Your task to perform on an android device: turn notification dots off Image 0: 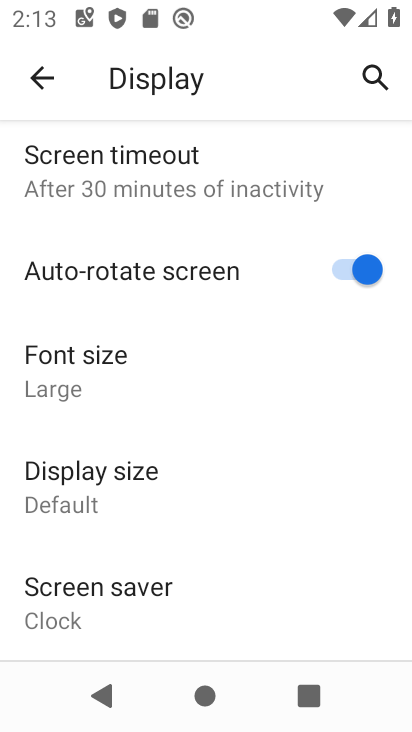
Step 0: press home button
Your task to perform on an android device: turn notification dots off Image 1: 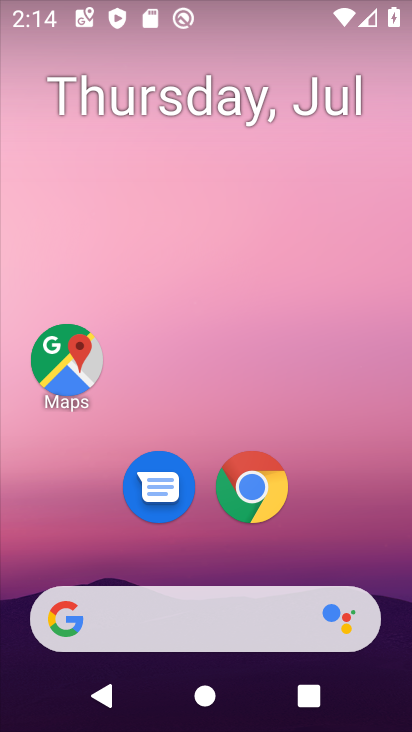
Step 1: drag from (338, 559) to (351, 198)
Your task to perform on an android device: turn notification dots off Image 2: 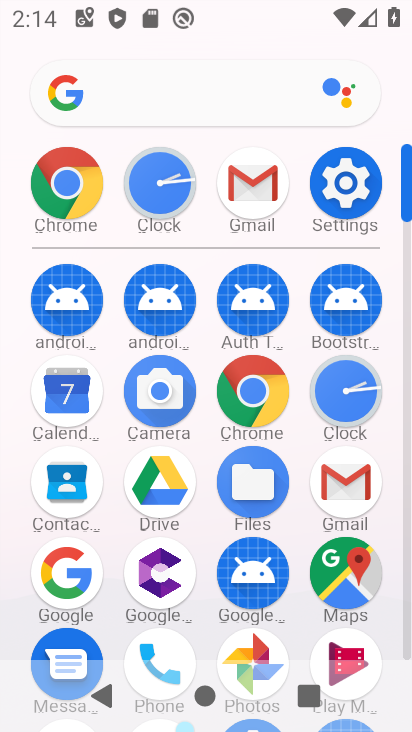
Step 2: click (350, 187)
Your task to perform on an android device: turn notification dots off Image 3: 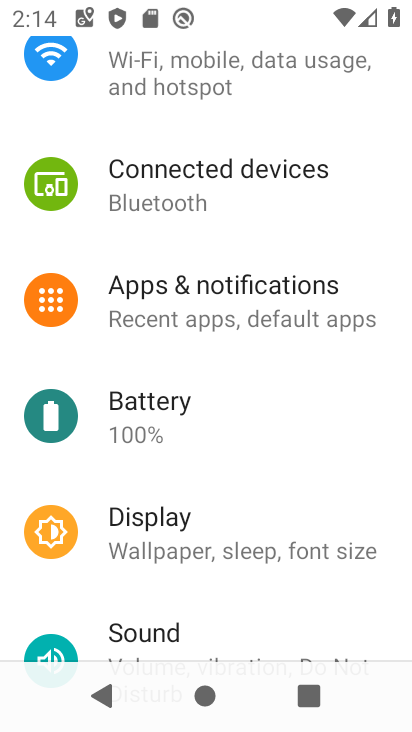
Step 3: drag from (359, 167) to (364, 265)
Your task to perform on an android device: turn notification dots off Image 4: 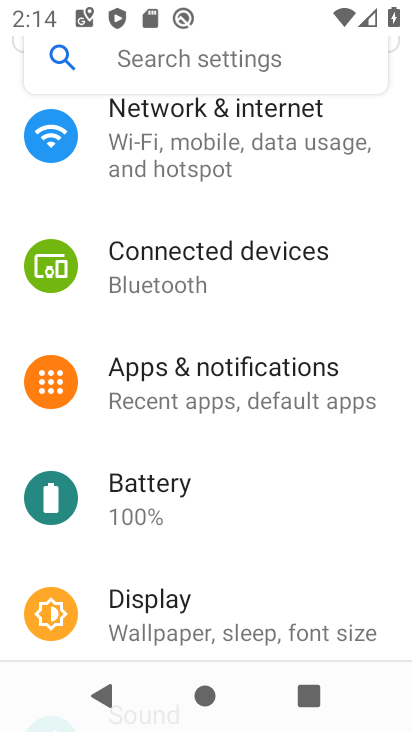
Step 4: drag from (385, 150) to (387, 249)
Your task to perform on an android device: turn notification dots off Image 5: 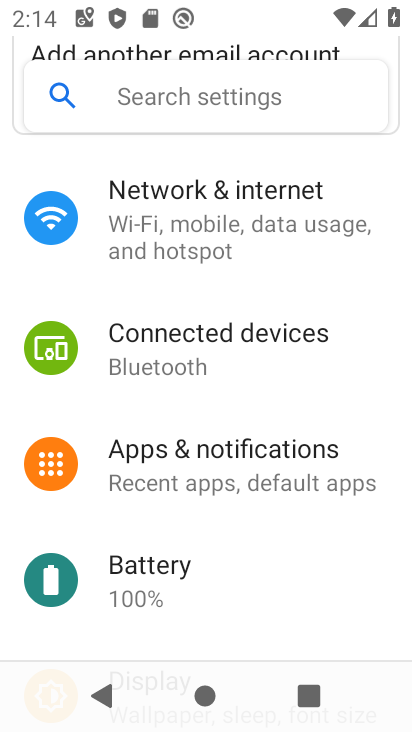
Step 5: click (272, 455)
Your task to perform on an android device: turn notification dots off Image 6: 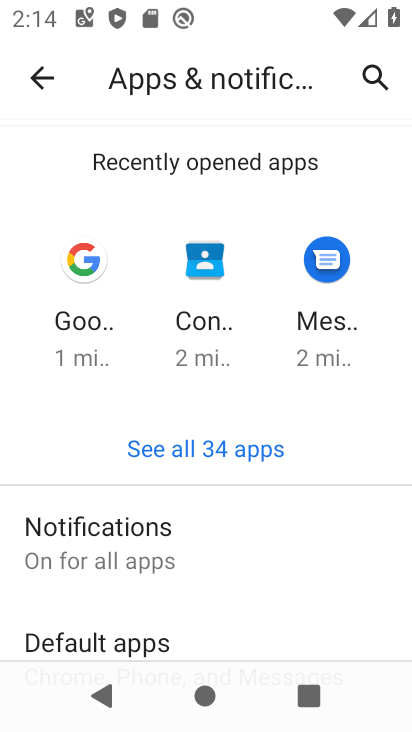
Step 6: click (137, 547)
Your task to perform on an android device: turn notification dots off Image 7: 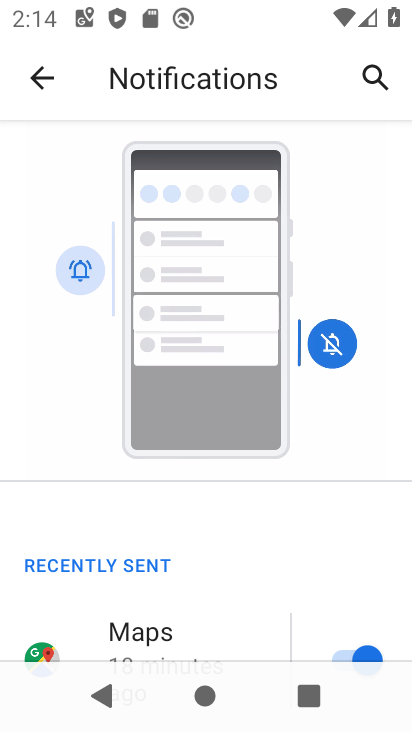
Step 7: drag from (215, 549) to (213, 431)
Your task to perform on an android device: turn notification dots off Image 8: 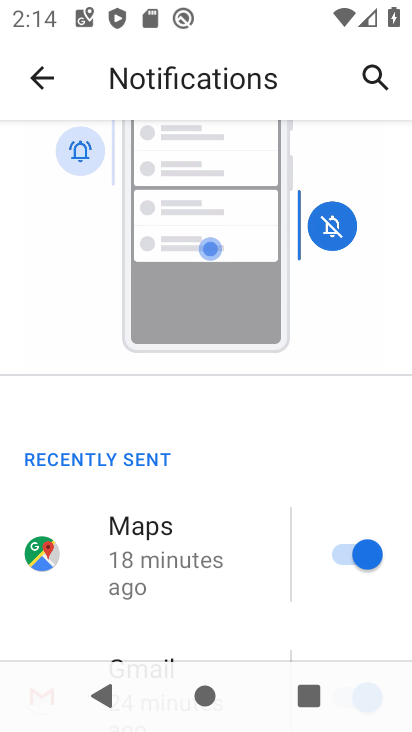
Step 8: drag from (259, 553) to (257, 421)
Your task to perform on an android device: turn notification dots off Image 9: 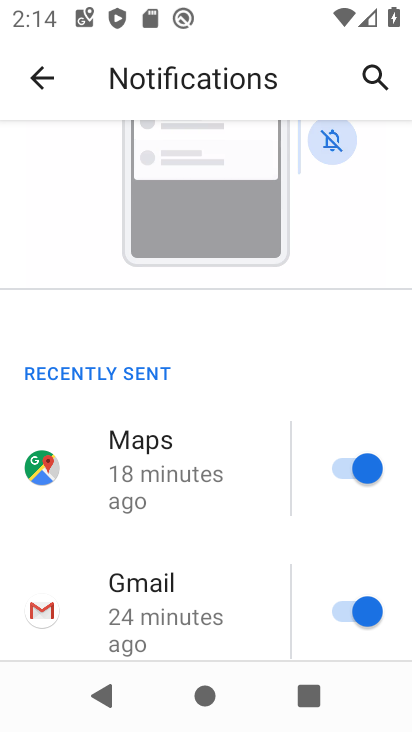
Step 9: drag from (258, 574) to (257, 389)
Your task to perform on an android device: turn notification dots off Image 10: 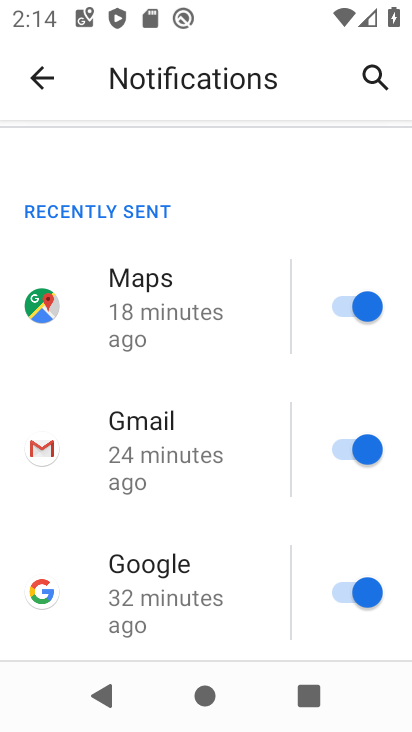
Step 10: drag from (254, 614) to (255, 451)
Your task to perform on an android device: turn notification dots off Image 11: 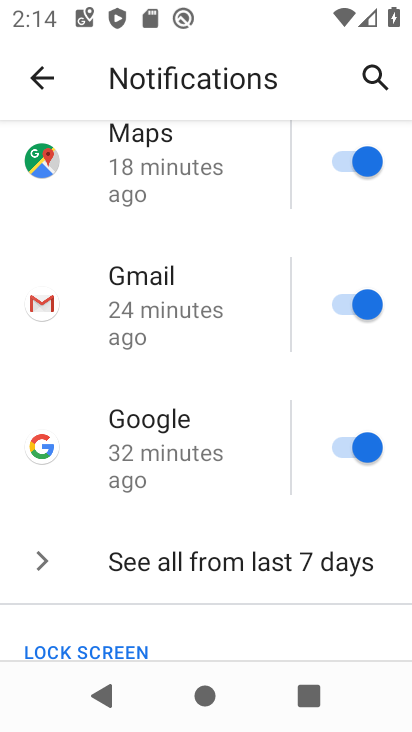
Step 11: drag from (257, 628) to (257, 438)
Your task to perform on an android device: turn notification dots off Image 12: 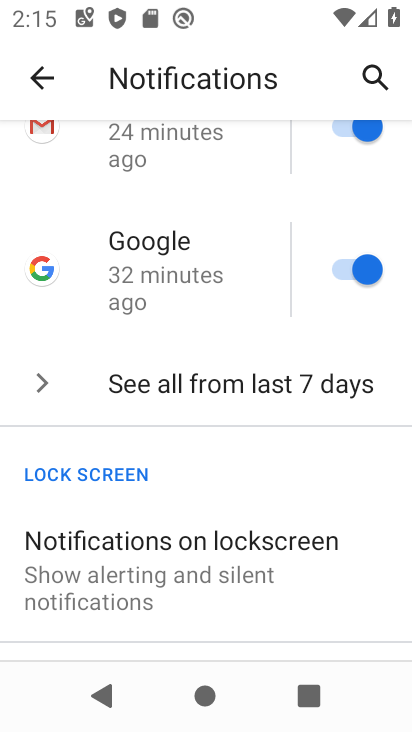
Step 12: drag from (264, 612) to (264, 465)
Your task to perform on an android device: turn notification dots off Image 13: 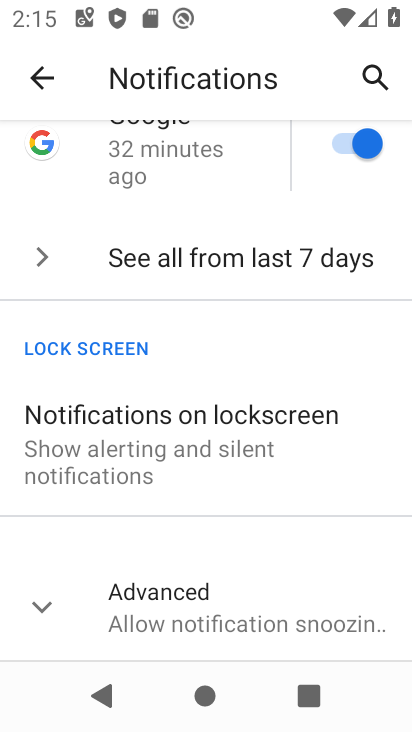
Step 13: click (279, 596)
Your task to perform on an android device: turn notification dots off Image 14: 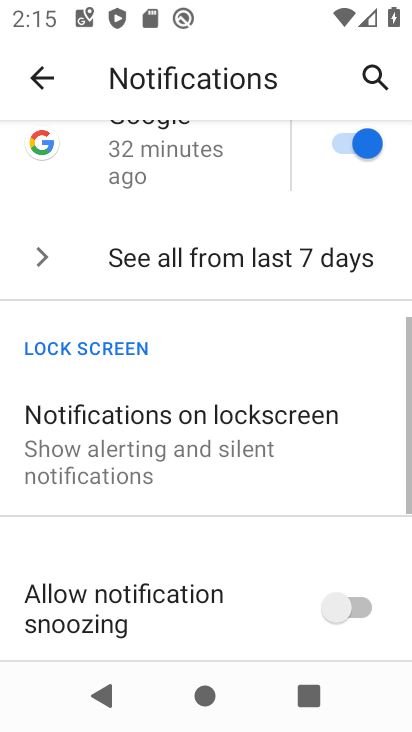
Step 14: drag from (279, 596) to (278, 437)
Your task to perform on an android device: turn notification dots off Image 15: 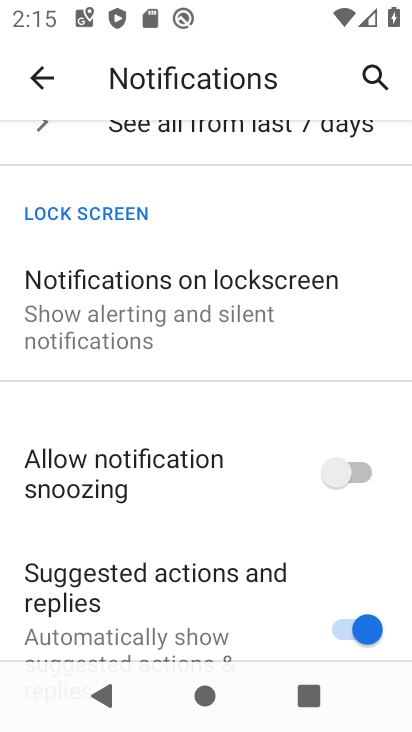
Step 15: drag from (283, 606) to (287, 446)
Your task to perform on an android device: turn notification dots off Image 16: 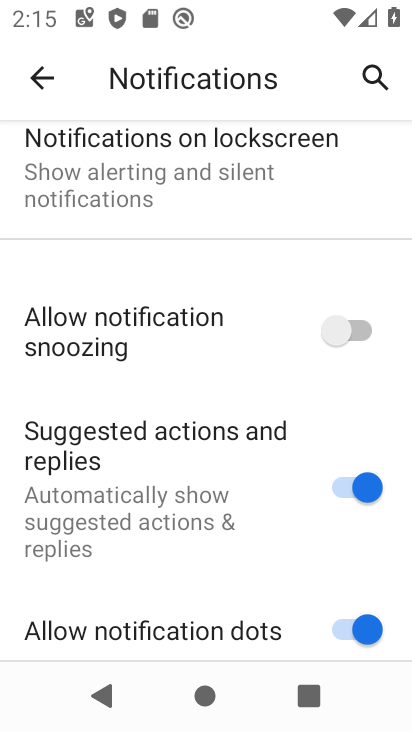
Step 16: drag from (298, 590) to (298, 455)
Your task to perform on an android device: turn notification dots off Image 17: 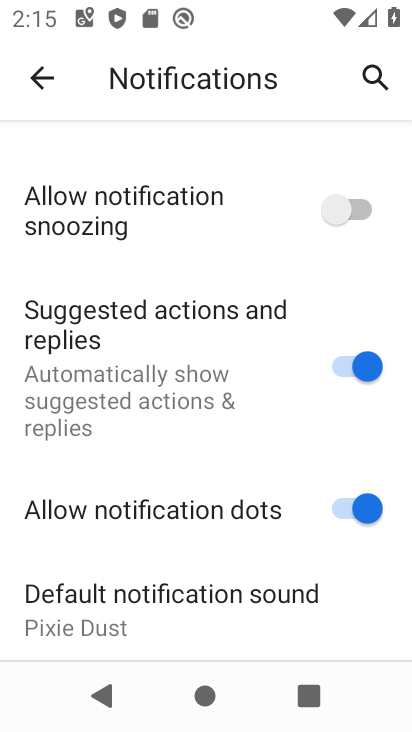
Step 17: click (355, 515)
Your task to perform on an android device: turn notification dots off Image 18: 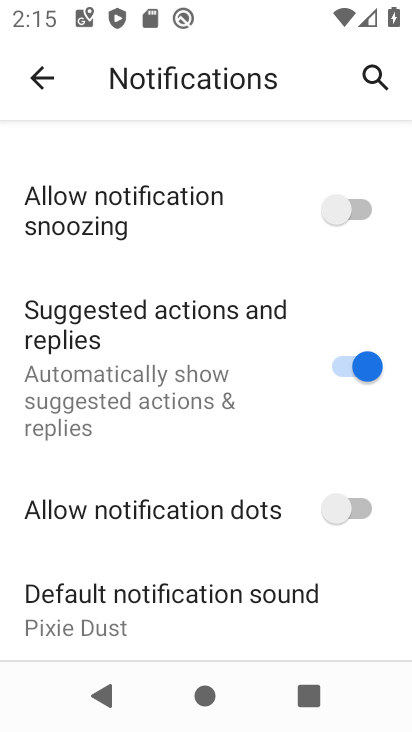
Step 18: task complete